Your task to perform on an android device: Search for a new eyeshadow Image 0: 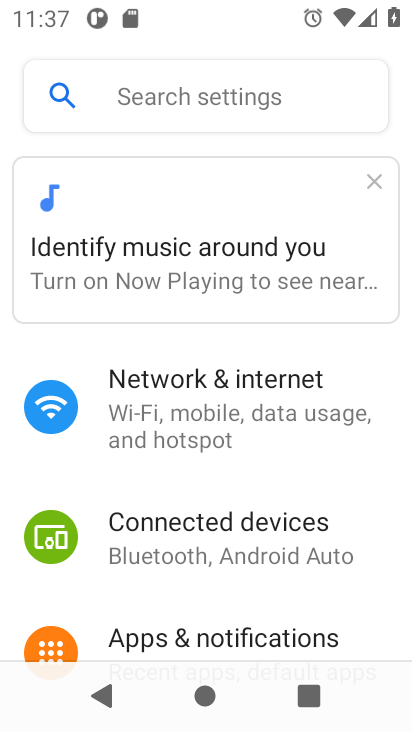
Step 0: press home button
Your task to perform on an android device: Search for a new eyeshadow Image 1: 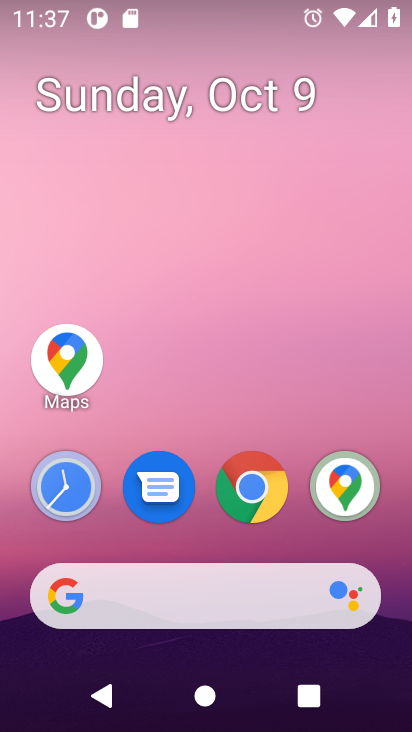
Step 1: drag from (201, 536) to (189, 25)
Your task to perform on an android device: Search for a new eyeshadow Image 2: 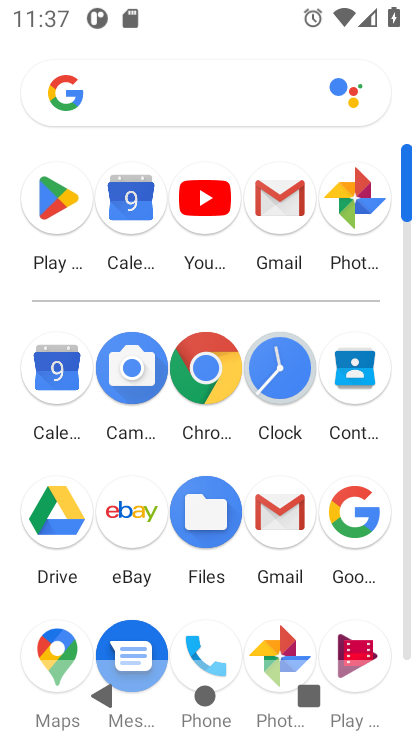
Step 2: click (202, 372)
Your task to perform on an android device: Search for a new eyeshadow Image 3: 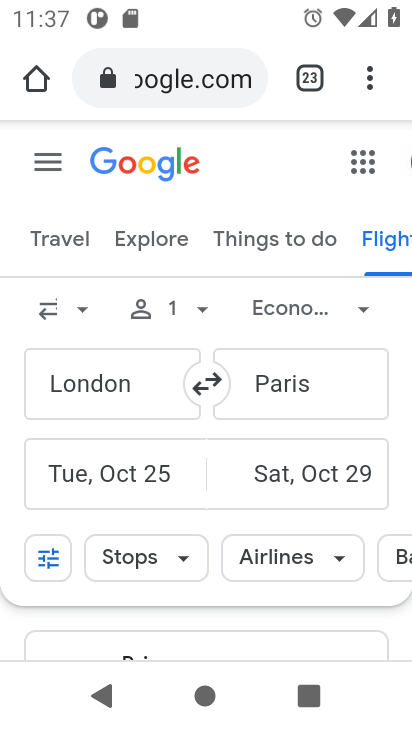
Step 3: drag from (229, 286) to (252, 484)
Your task to perform on an android device: Search for a new eyeshadow Image 4: 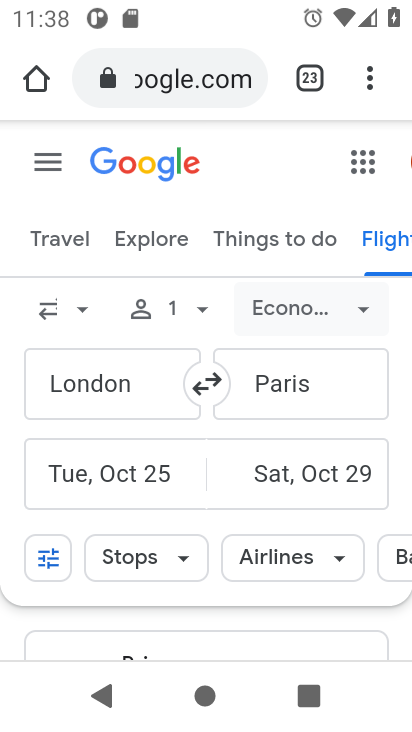
Step 4: drag from (217, 199) to (217, 542)
Your task to perform on an android device: Search for a new eyeshadow Image 5: 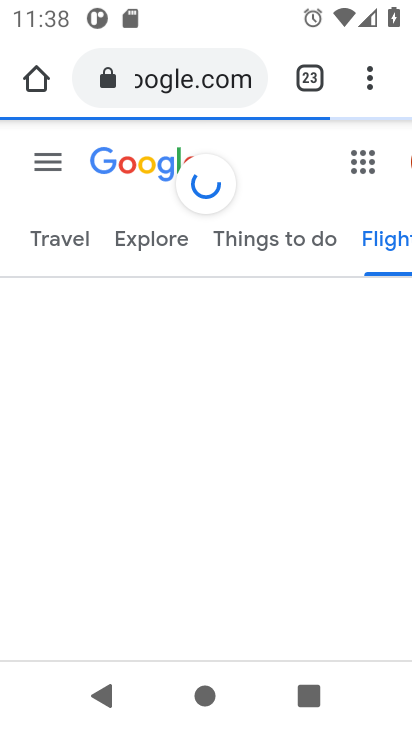
Step 5: click (365, 84)
Your task to perform on an android device: Search for a new eyeshadow Image 6: 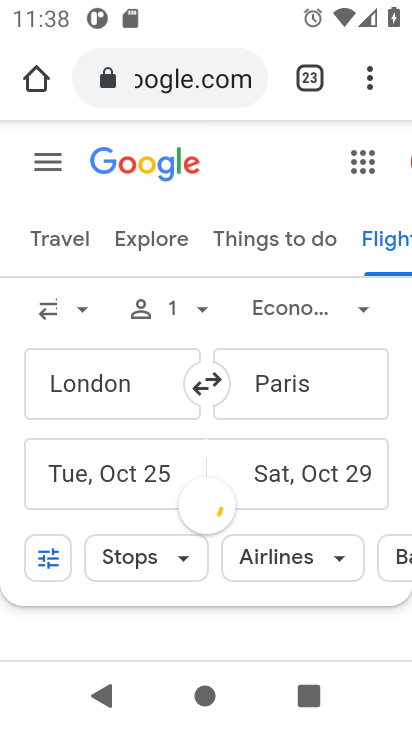
Step 6: drag from (372, 82) to (94, 157)
Your task to perform on an android device: Search for a new eyeshadow Image 7: 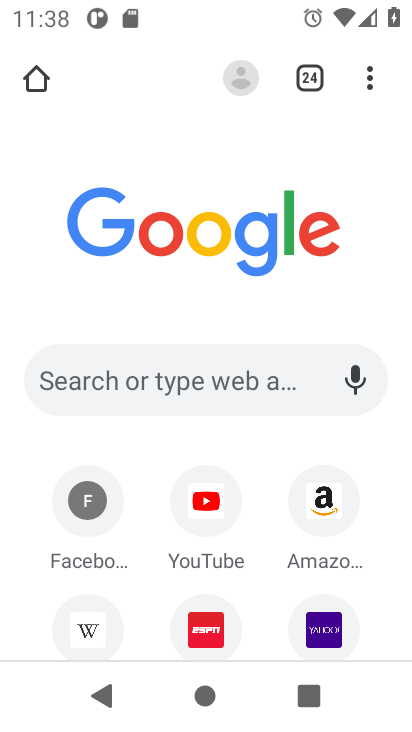
Step 7: click (179, 375)
Your task to perform on an android device: Search for a new eyeshadow Image 8: 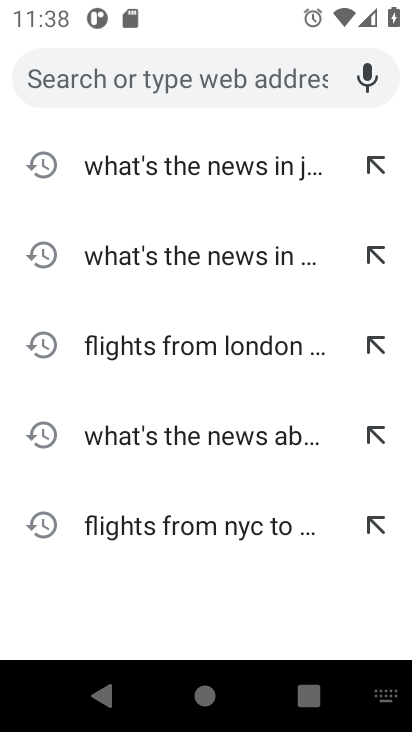
Step 8: type "new eyeshadow"
Your task to perform on an android device: Search for a new eyeshadow Image 9: 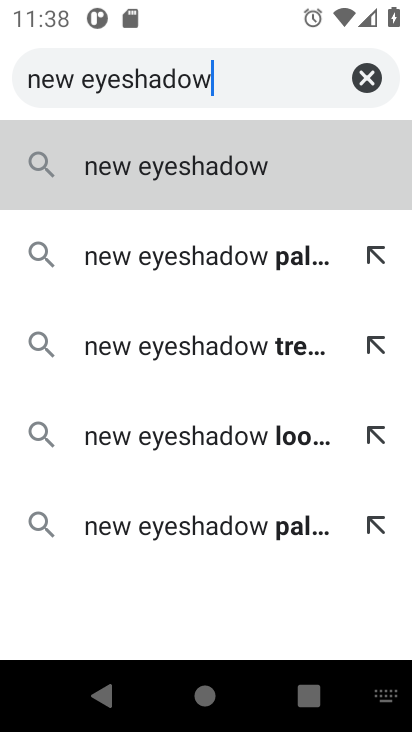
Step 9: type ""
Your task to perform on an android device: Search for a new eyeshadow Image 10: 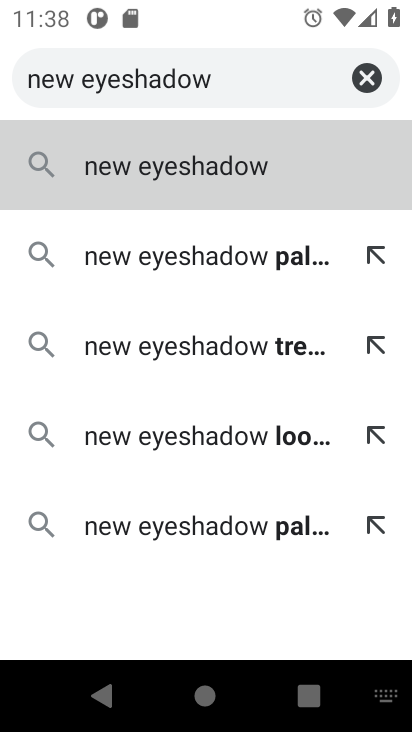
Step 10: click (182, 166)
Your task to perform on an android device: Search for a new eyeshadow Image 11: 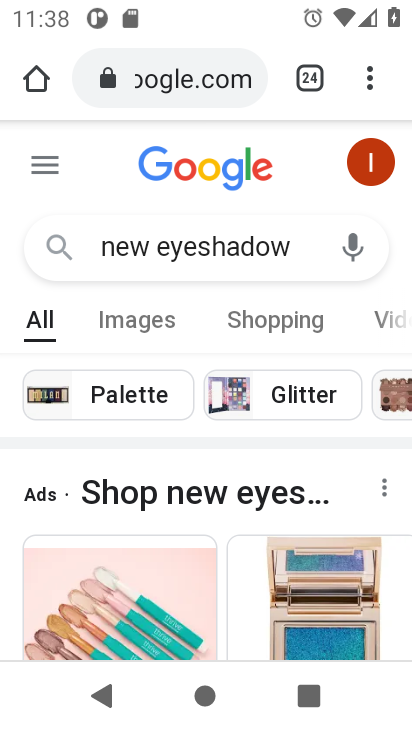
Step 11: task complete